Your task to perform on an android device: Empty the shopping cart on bestbuy. Add "energizer triple a" to the cart on bestbuy Image 0: 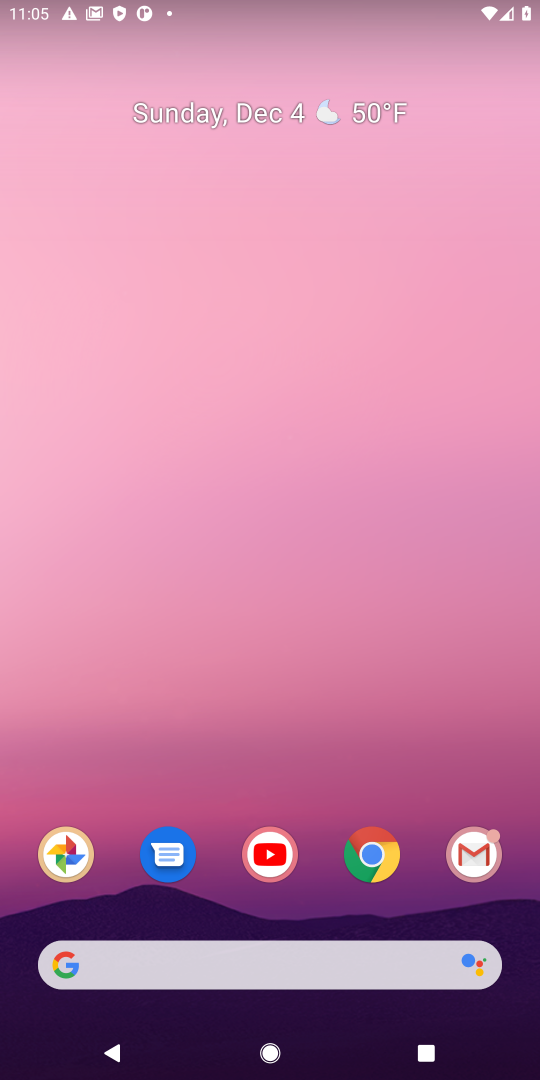
Step 0: click (324, 979)
Your task to perform on an android device: Empty the shopping cart on bestbuy. Add "energizer triple a" to the cart on bestbuy Image 1: 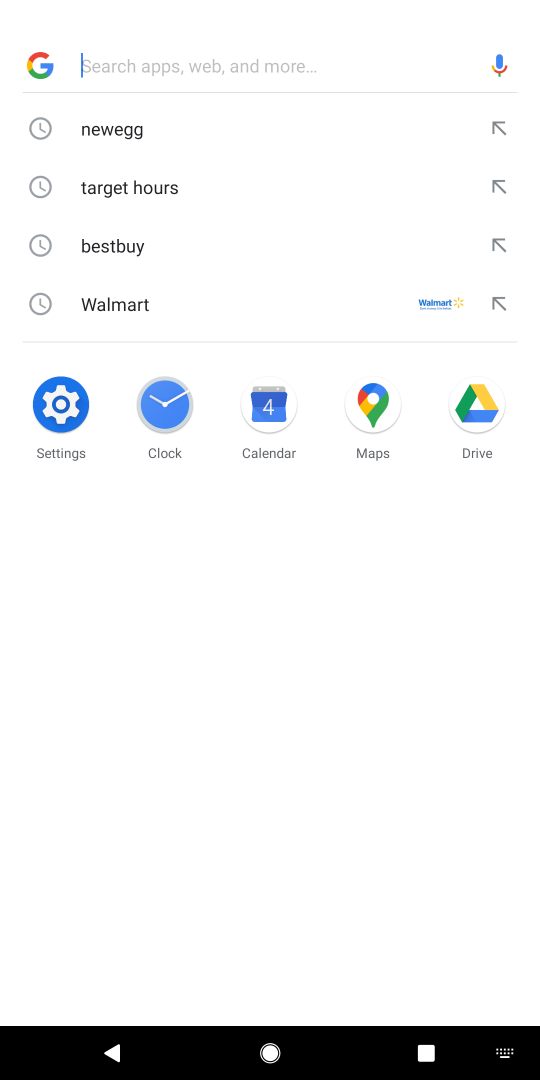
Step 1: click (169, 247)
Your task to perform on an android device: Empty the shopping cart on bestbuy. Add "energizer triple a" to the cart on bestbuy Image 2: 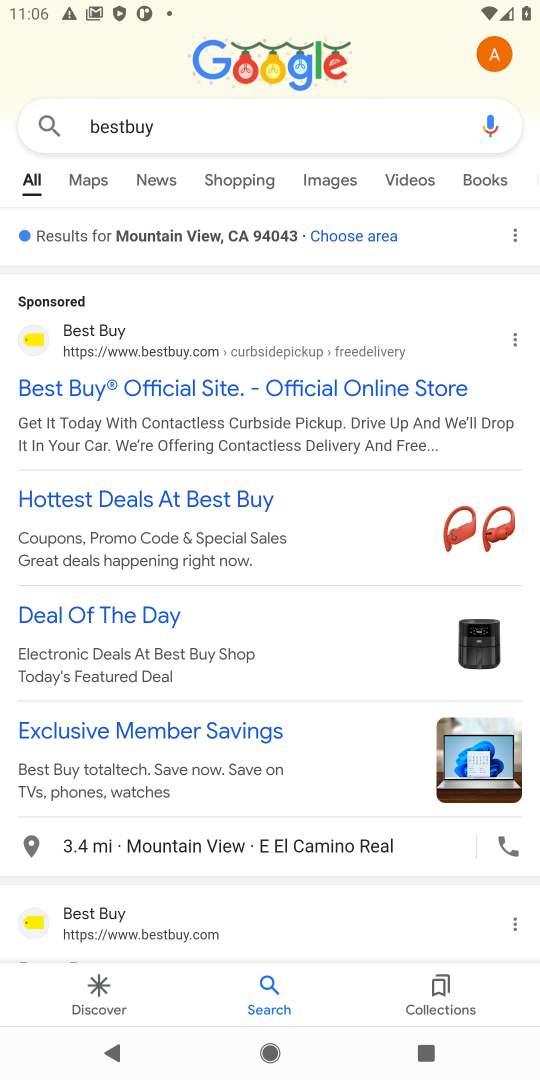
Step 2: click (117, 377)
Your task to perform on an android device: Empty the shopping cart on bestbuy. Add "energizer triple a" to the cart on bestbuy Image 3: 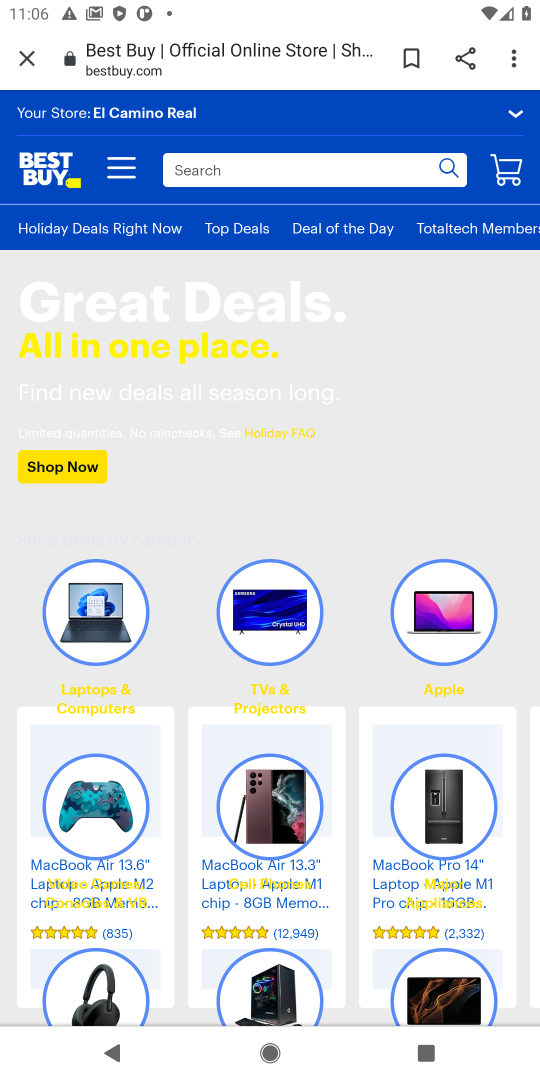
Step 3: click (253, 166)
Your task to perform on an android device: Empty the shopping cart on bestbuy. Add "energizer triple a" to the cart on bestbuy Image 4: 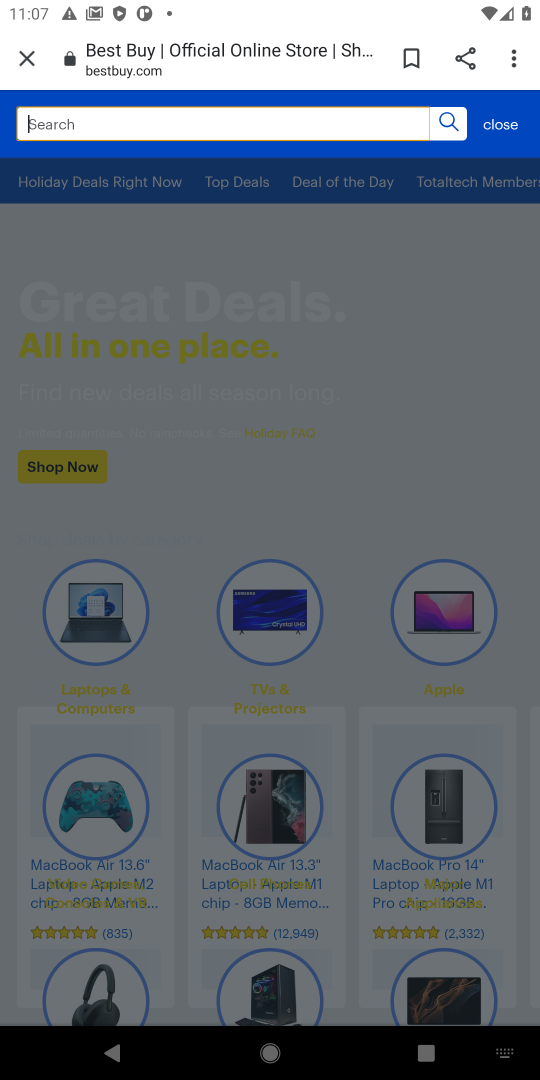
Step 4: type "energier triple a"
Your task to perform on an android device: Empty the shopping cart on bestbuy. Add "energizer triple a" to the cart on bestbuy Image 5: 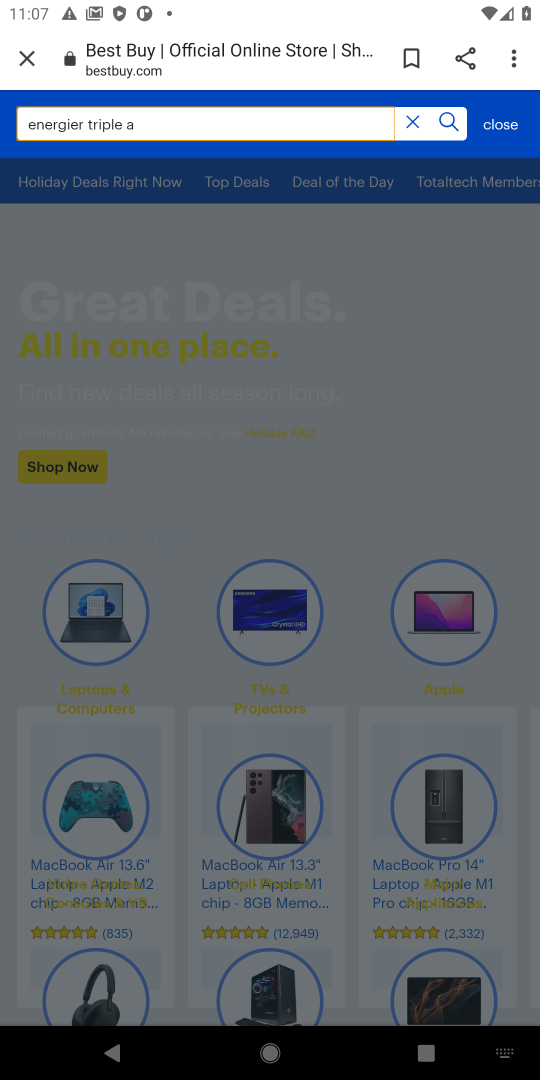
Step 5: click (447, 120)
Your task to perform on an android device: Empty the shopping cart on bestbuy. Add "energizer triple a" to the cart on bestbuy Image 6: 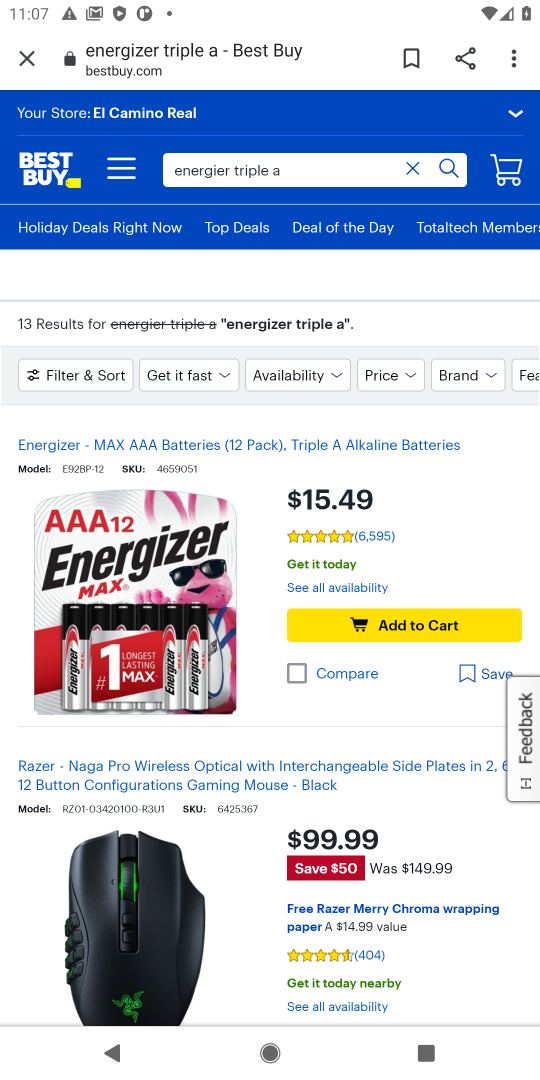
Step 6: click (383, 615)
Your task to perform on an android device: Empty the shopping cart on bestbuy. Add "energizer triple a" to the cart on bestbuy Image 7: 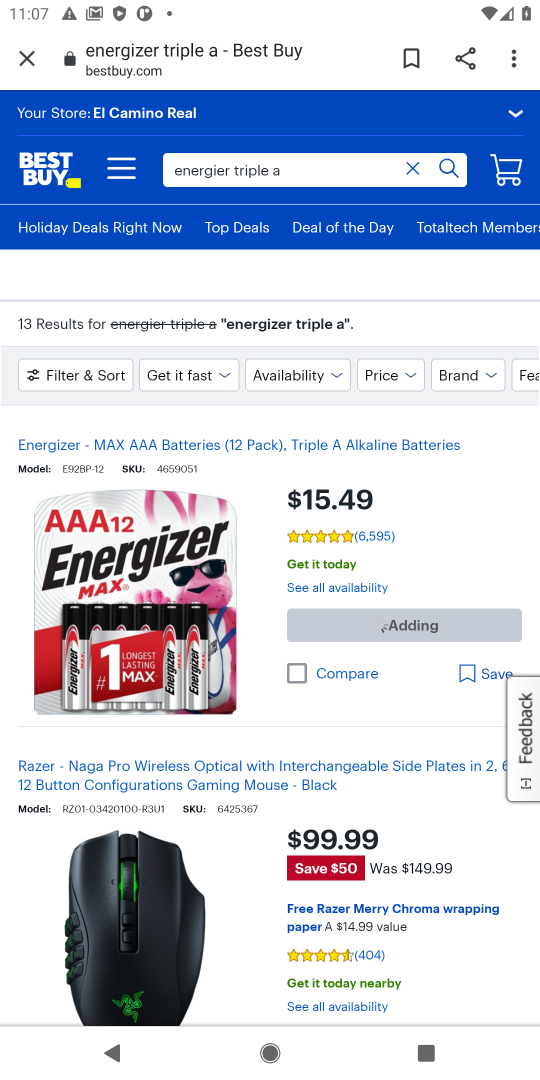
Step 7: task complete